Your task to perform on an android device: What's the weather? Image 0: 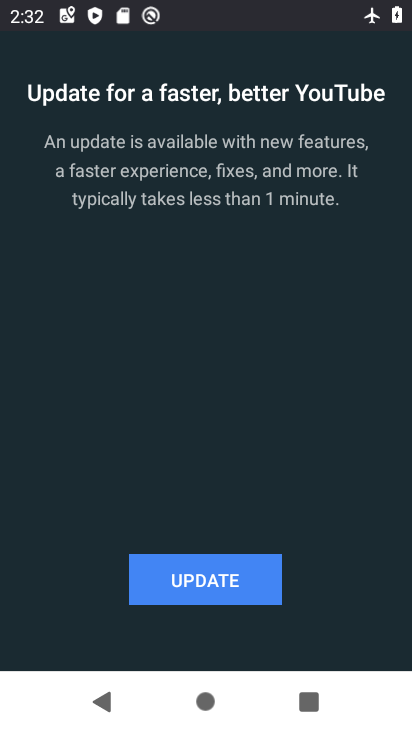
Step 0: press home button
Your task to perform on an android device: What's the weather? Image 1: 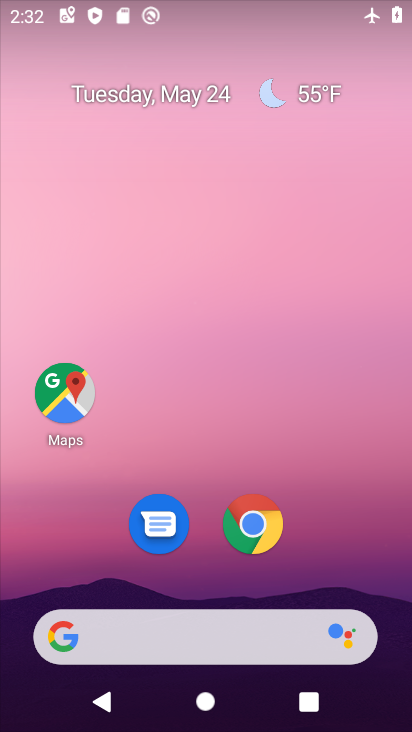
Step 1: click (312, 95)
Your task to perform on an android device: What's the weather? Image 2: 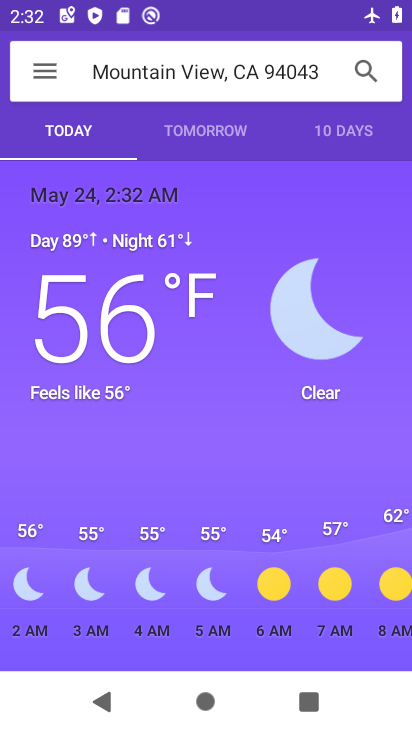
Step 2: task complete